Your task to perform on an android device: toggle show notifications on the lock screen Image 0: 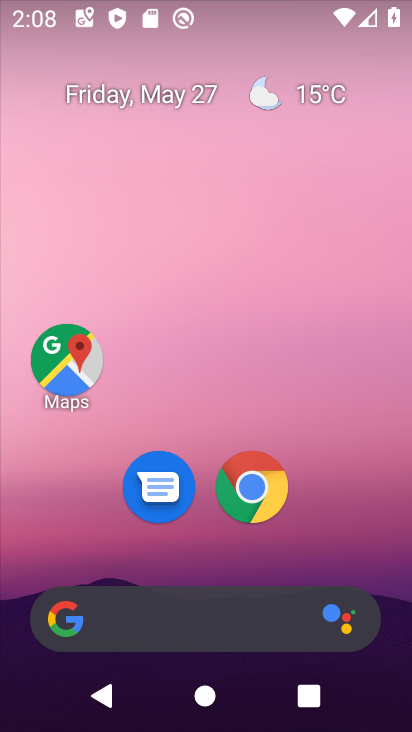
Step 0: drag from (204, 563) to (224, 63)
Your task to perform on an android device: toggle show notifications on the lock screen Image 1: 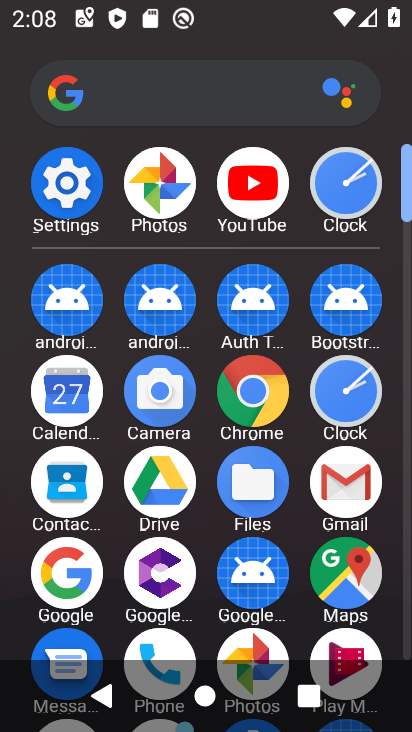
Step 1: click (78, 196)
Your task to perform on an android device: toggle show notifications on the lock screen Image 2: 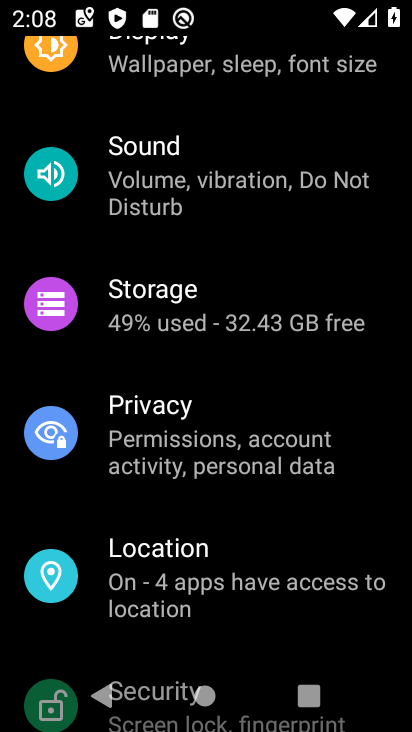
Step 2: drag from (252, 147) to (228, 587)
Your task to perform on an android device: toggle show notifications on the lock screen Image 3: 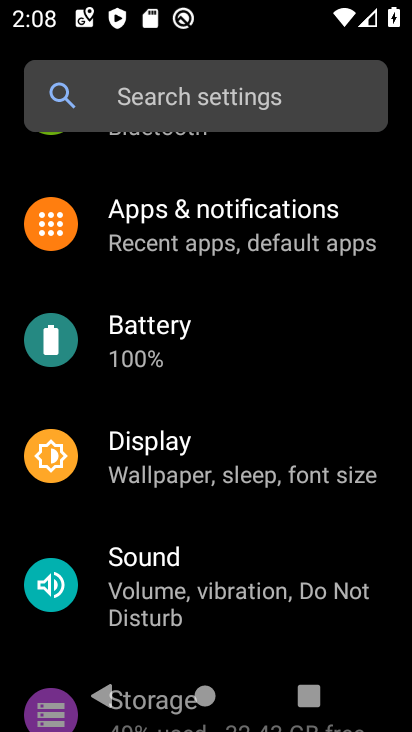
Step 3: click (188, 259)
Your task to perform on an android device: toggle show notifications on the lock screen Image 4: 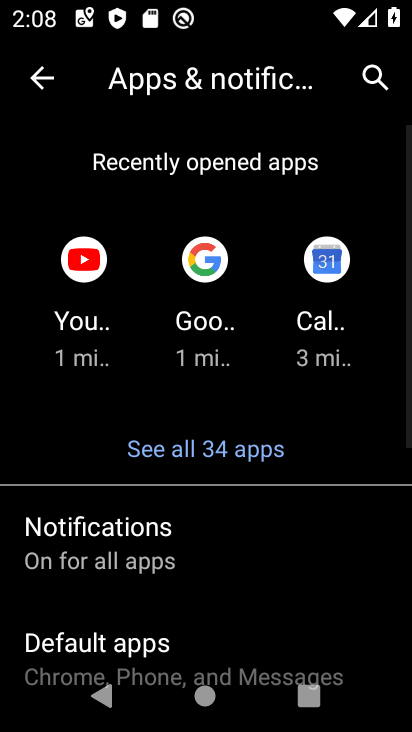
Step 4: drag from (113, 600) to (288, 93)
Your task to perform on an android device: toggle show notifications on the lock screen Image 5: 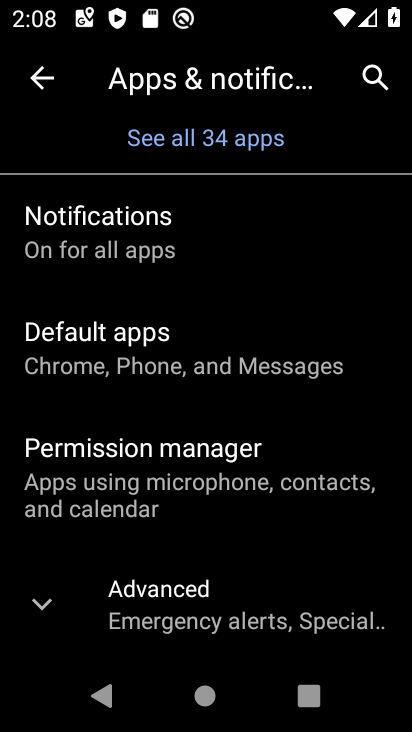
Step 5: click (239, 606)
Your task to perform on an android device: toggle show notifications on the lock screen Image 6: 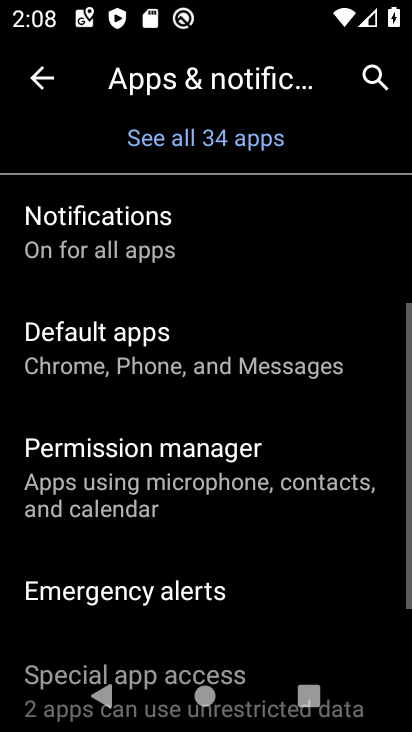
Step 6: drag from (239, 606) to (283, 185)
Your task to perform on an android device: toggle show notifications on the lock screen Image 7: 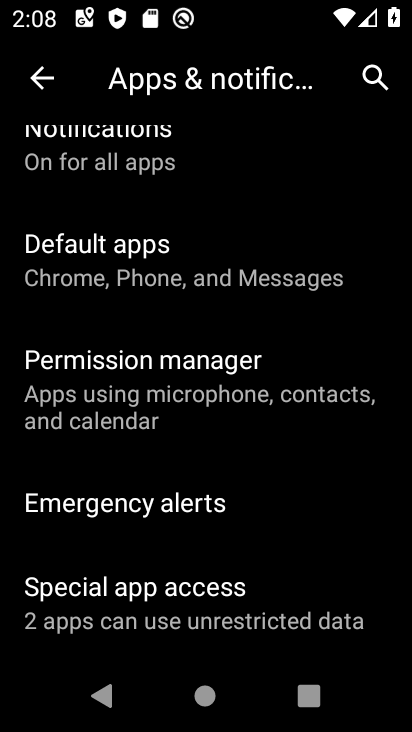
Step 7: click (152, 180)
Your task to perform on an android device: toggle show notifications on the lock screen Image 8: 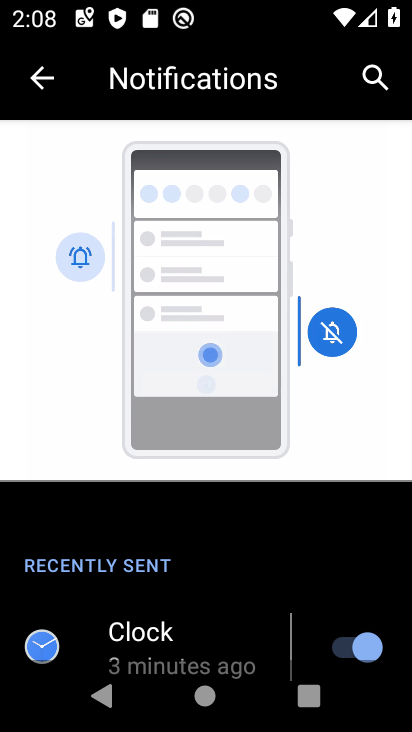
Step 8: drag from (185, 650) to (321, 67)
Your task to perform on an android device: toggle show notifications on the lock screen Image 9: 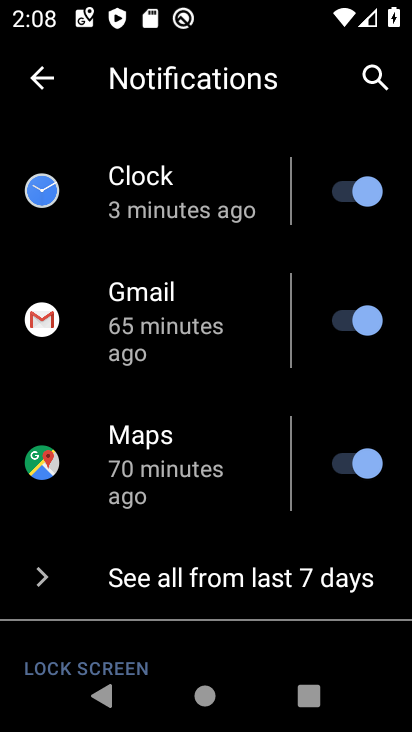
Step 9: drag from (139, 648) to (342, 64)
Your task to perform on an android device: toggle show notifications on the lock screen Image 10: 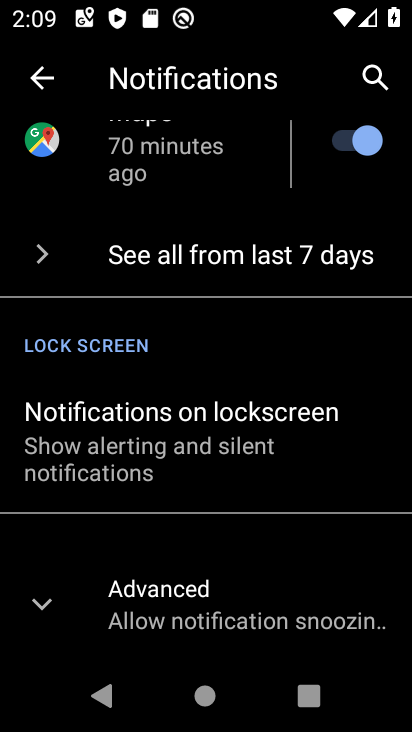
Step 10: click (231, 467)
Your task to perform on an android device: toggle show notifications on the lock screen Image 11: 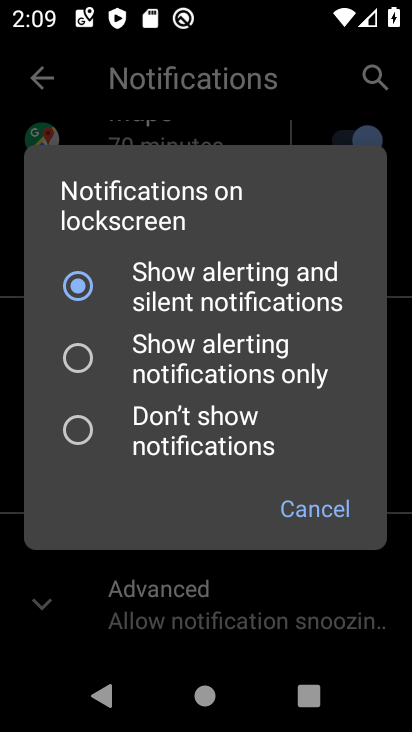
Step 11: click (191, 358)
Your task to perform on an android device: toggle show notifications on the lock screen Image 12: 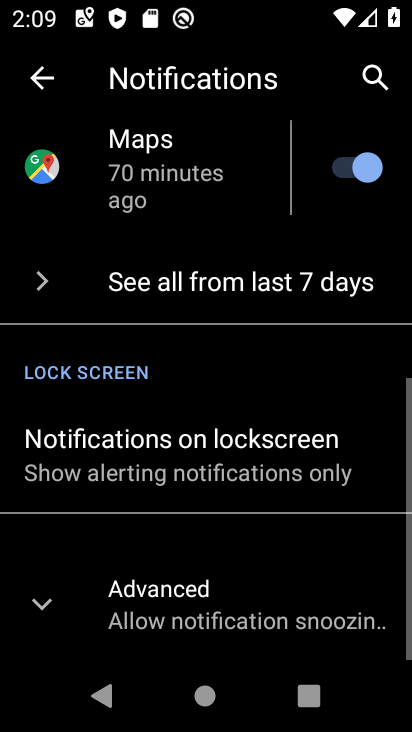
Step 12: task complete